Your task to perform on an android device: turn smart compose on in the gmail app Image 0: 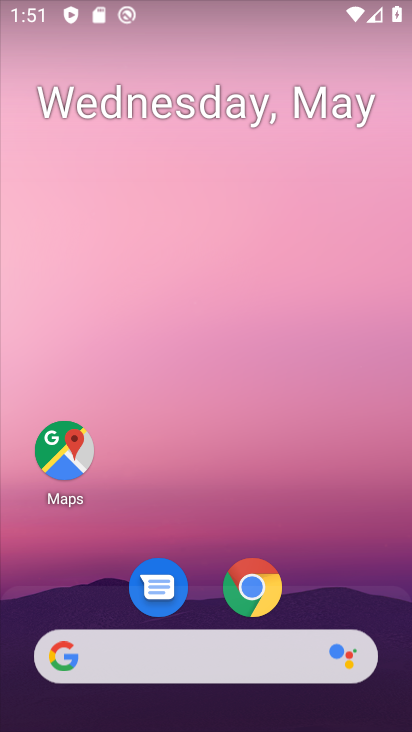
Step 0: drag from (75, 582) to (197, 183)
Your task to perform on an android device: turn smart compose on in the gmail app Image 1: 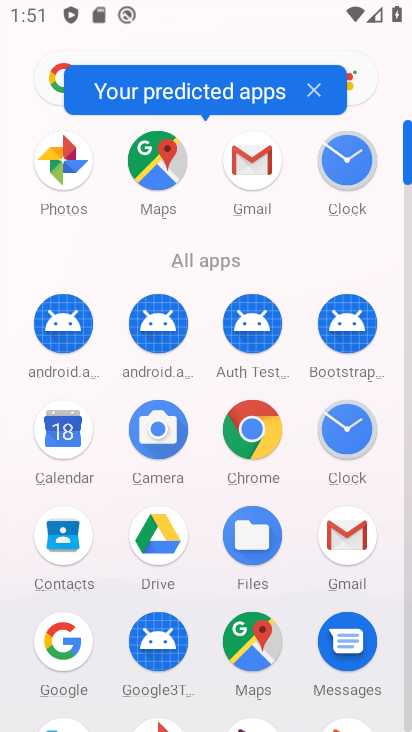
Step 1: click (347, 547)
Your task to perform on an android device: turn smart compose on in the gmail app Image 2: 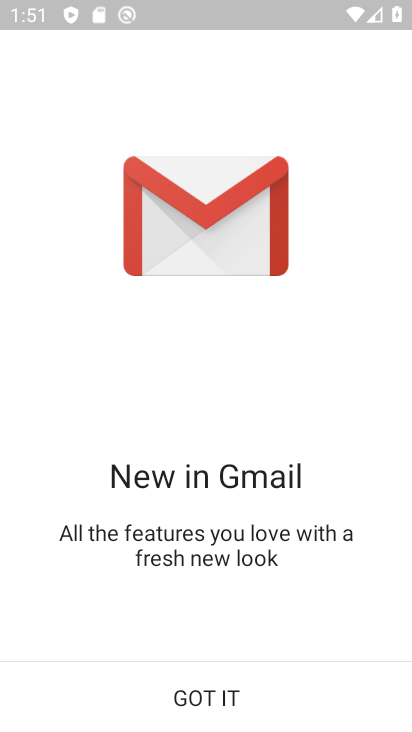
Step 2: click (222, 691)
Your task to perform on an android device: turn smart compose on in the gmail app Image 3: 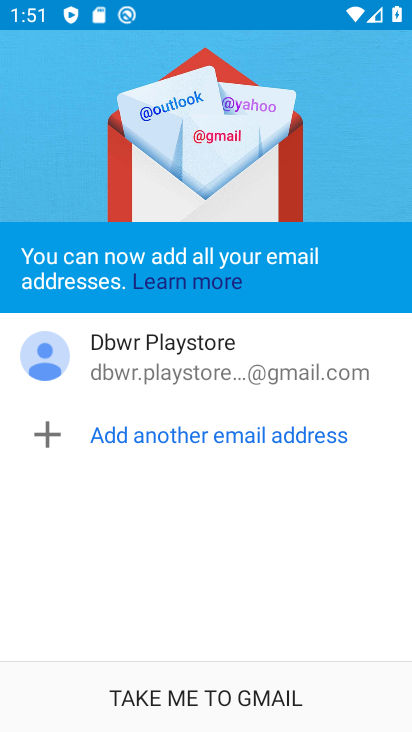
Step 3: click (222, 690)
Your task to perform on an android device: turn smart compose on in the gmail app Image 4: 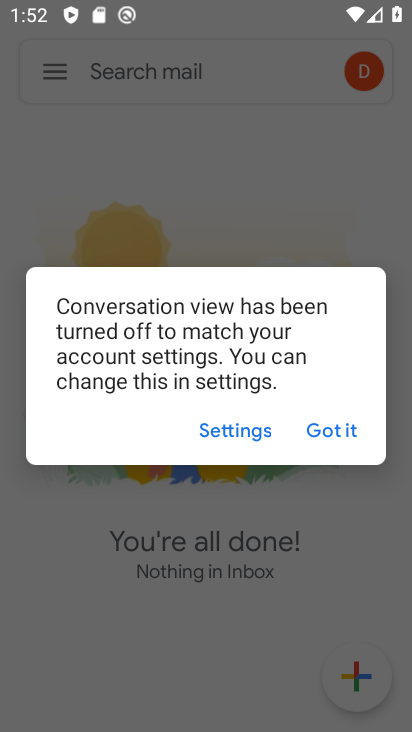
Step 4: click (328, 425)
Your task to perform on an android device: turn smart compose on in the gmail app Image 5: 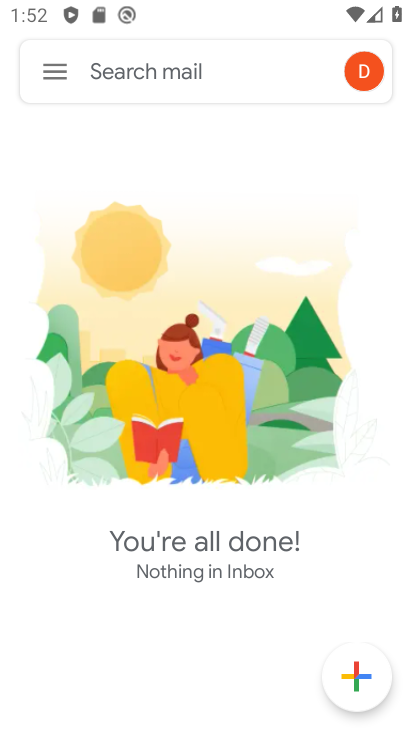
Step 5: click (65, 81)
Your task to perform on an android device: turn smart compose on in the gmail app Image 6: 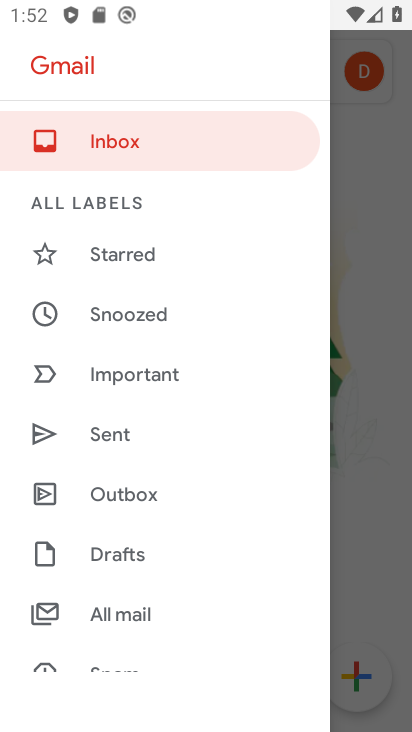
Step 6: drag from (99, 636) to (242, 252)
Your task to perform on an android device: turn smart compose on in the gmail app Image 7: 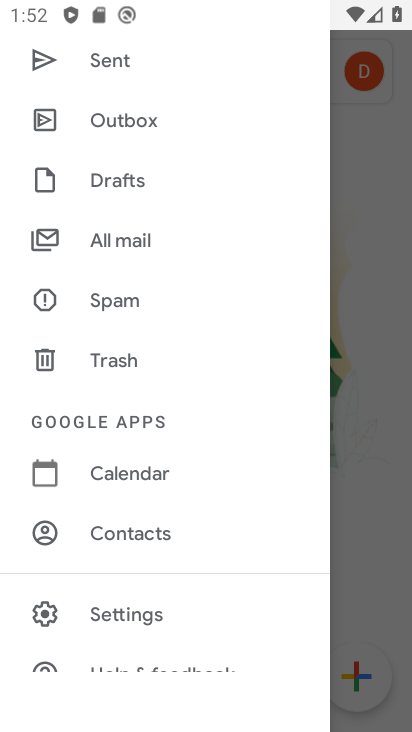
Step 7: click (144, 625)
Your task to perform on an android device: turn smart compose on in the gmail app Image 8: 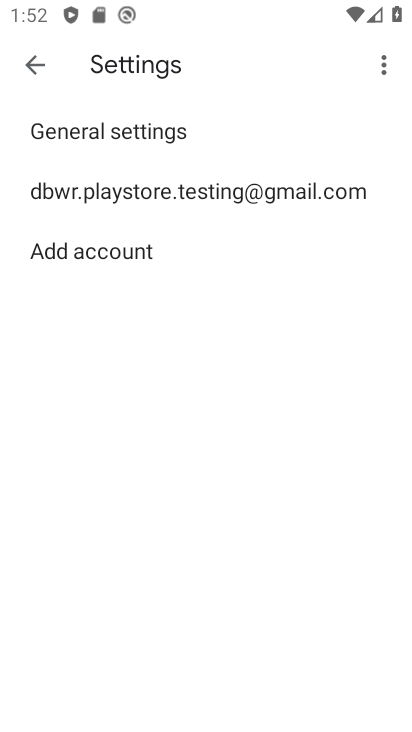
Step 8: click (221, 202)
Your task to perform on an android device: turn smart compose on in the gmail app Image 9: 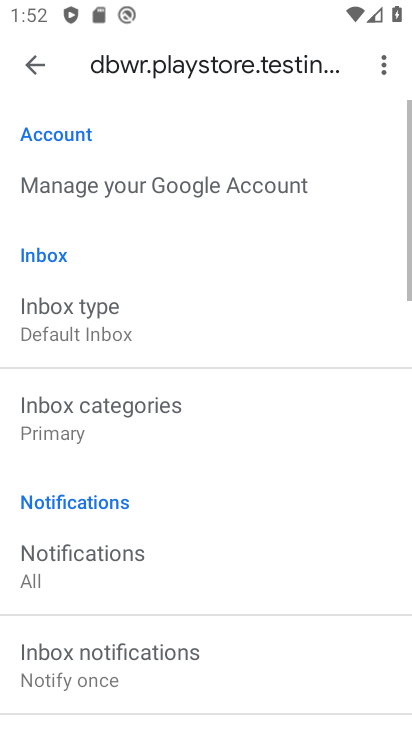
Step 9: task complete